Your task to perform on an android device: turn notification dots off Image 0: 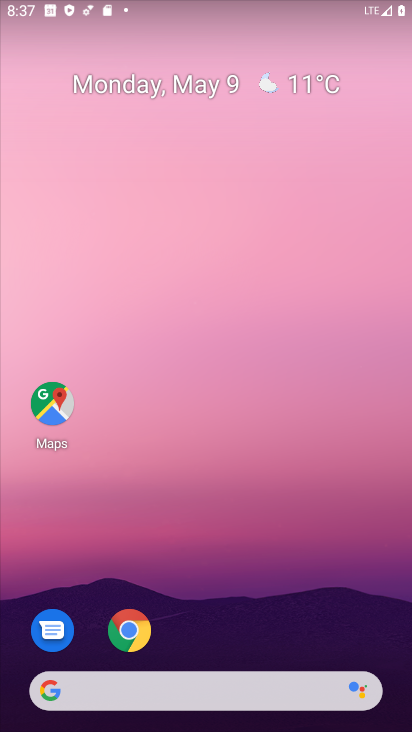
Step 0: drag from (245, 670) to (385, 558)
Your task to perform on an android device: turn notification dots off Image 1: 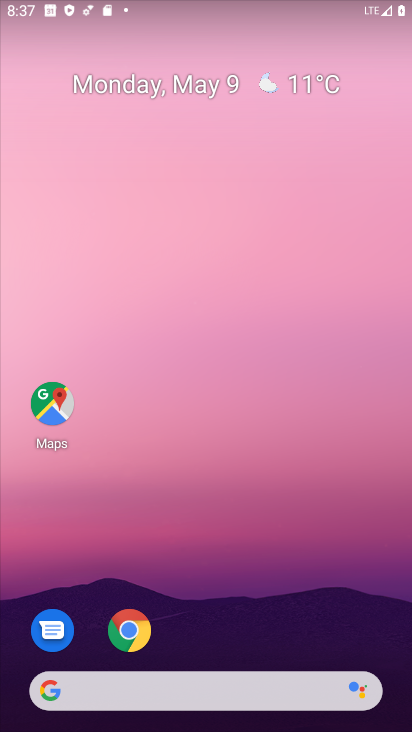
Step 1: drag from (242, 654) to (400, 0)
Your task to perform on an android device: turn notification dots off Image 2: 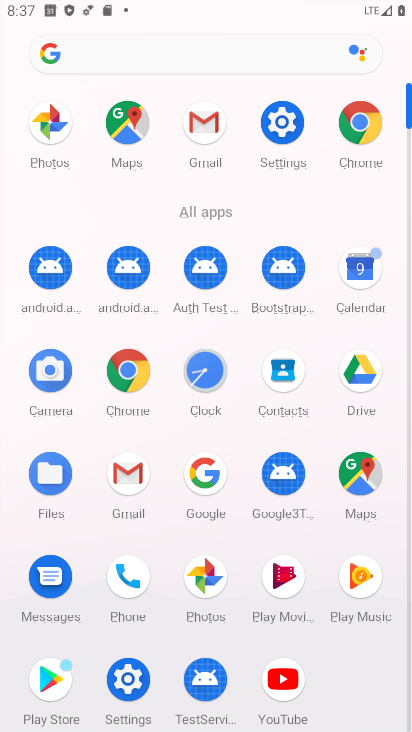
Step 2: click (133, 677)
Your task to perform on an android device: turn notification dots off Image 3: 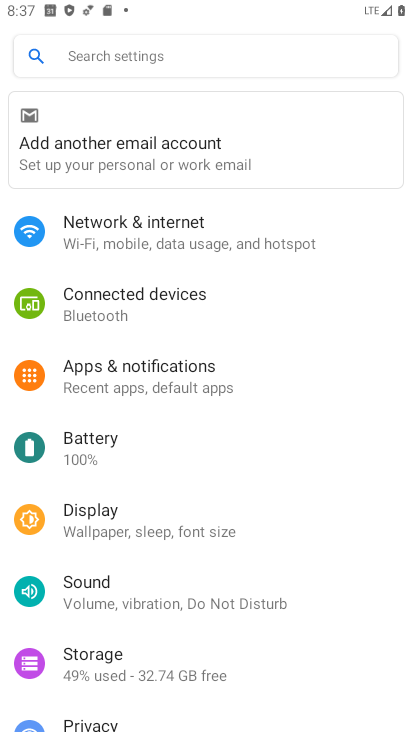
Step 3: click (198, 383)
Your task to perform on an android device: turn notification dots off Image 4: 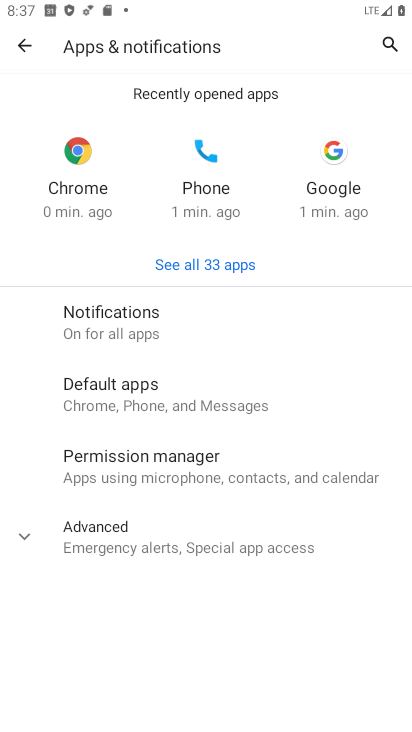
Step 4: click (189, 324)
Your task to perform on an android device: turn notification dots off Image 5: 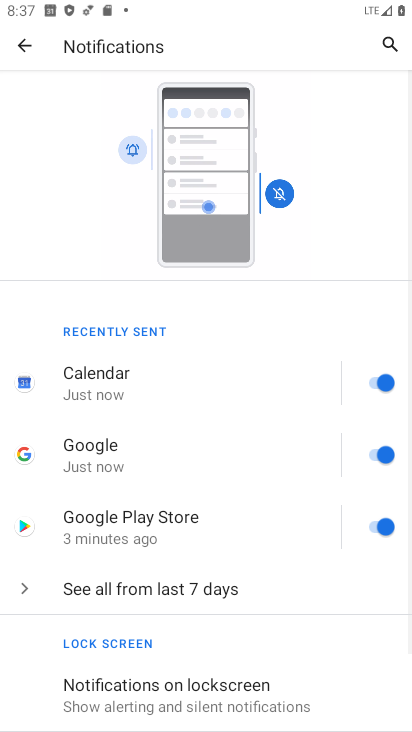
Step 5: drag from (186, 652) to (246, 322)
Your task to perform on an android device: turn notification dots off Image 6: 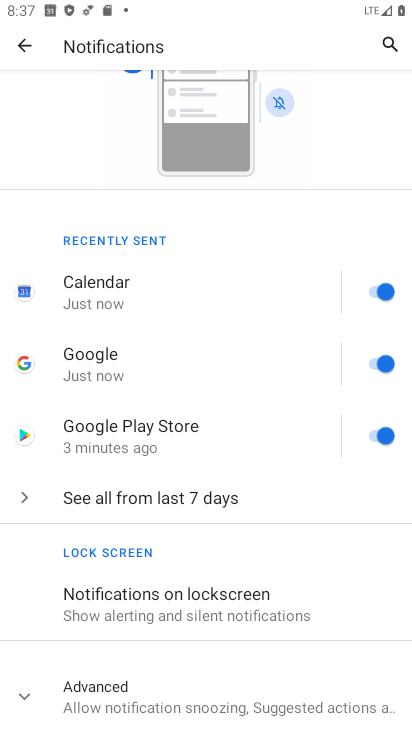
Step 6: click (178, 697)
Your task to perform on an android device: turn notification dots off Image 7: 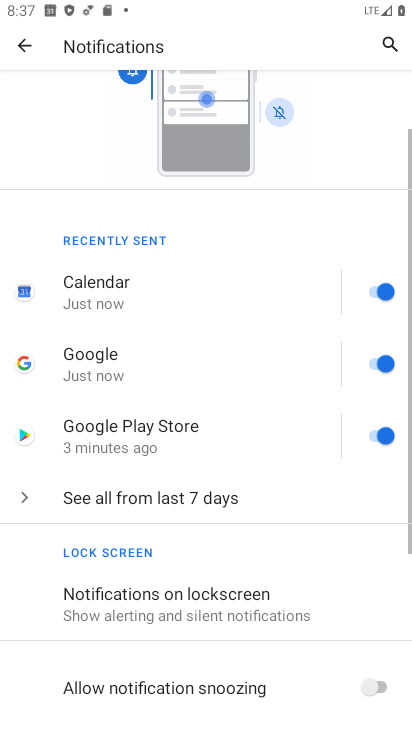
Step 7: drag from (220, 631) to (268, 176)
Your task to perform on an android device: turn notification dots off Image 8: 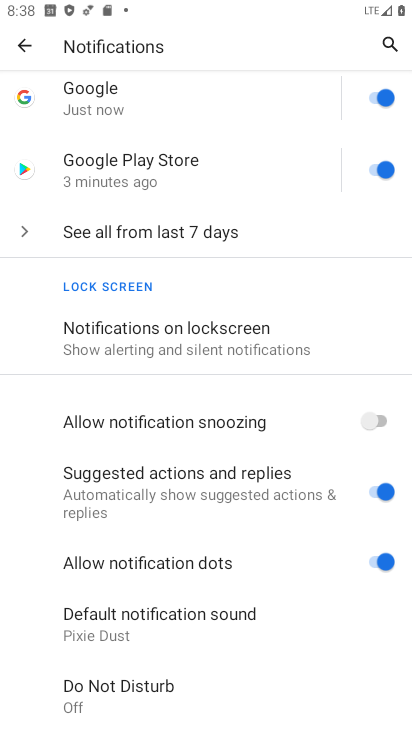
Step 8: click (380, 564)
Your task to perform on an android device: turn notification dots off Image 9: 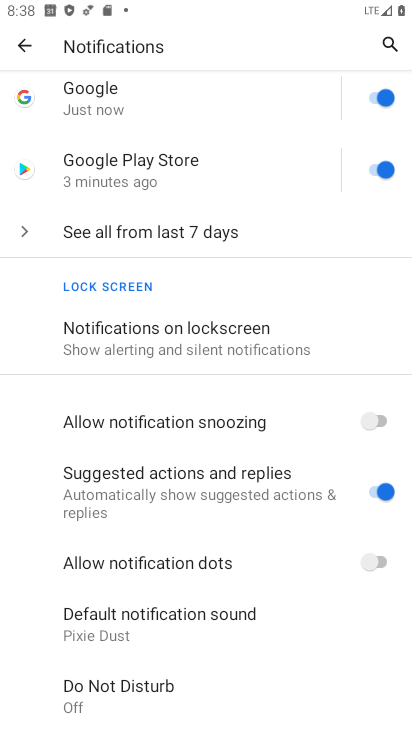
Step 9: task complete